Your task to perform on an android device: set the timer Image 0: 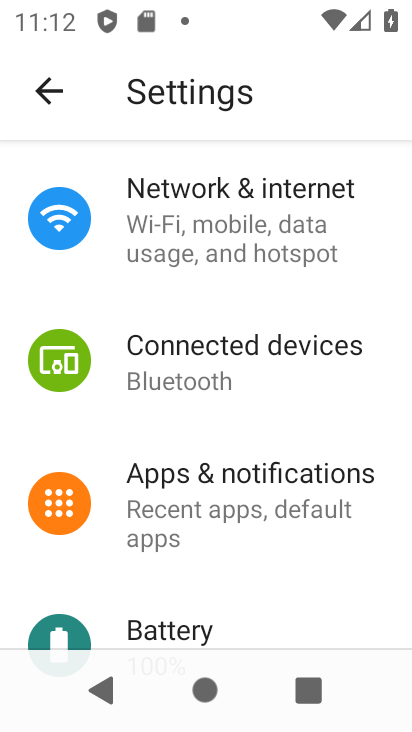
Step 0: press home button
Your task to perform on an android device: set the timer Image 1: 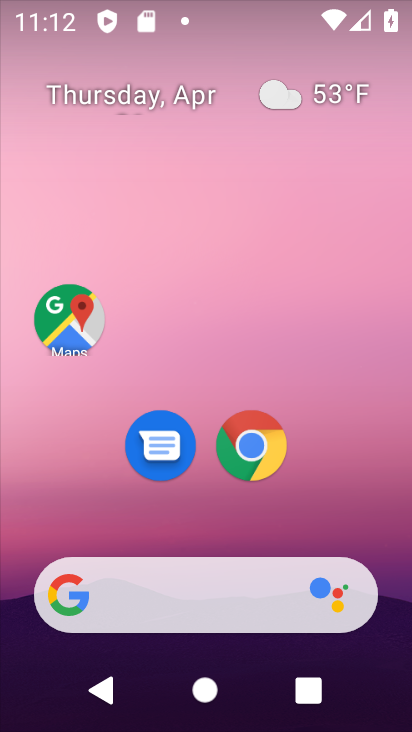
Step 1: drag from (182, 594) to (262, 49)
Your task to perform on an android device: set the timer Image 2: 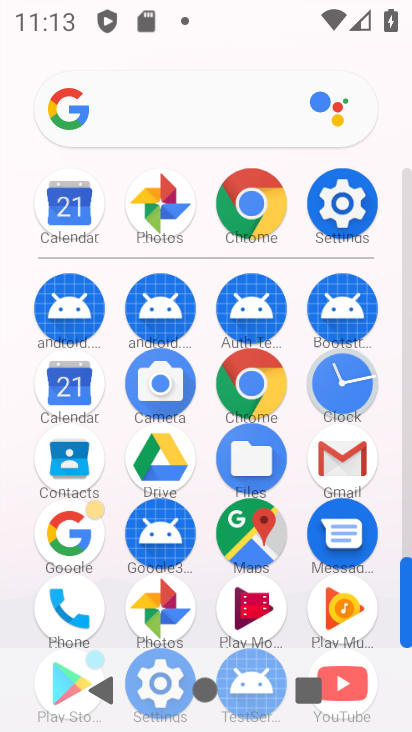
Step 2: click (340, 399)
Your task to perform on an android device: set the timer Image 3: 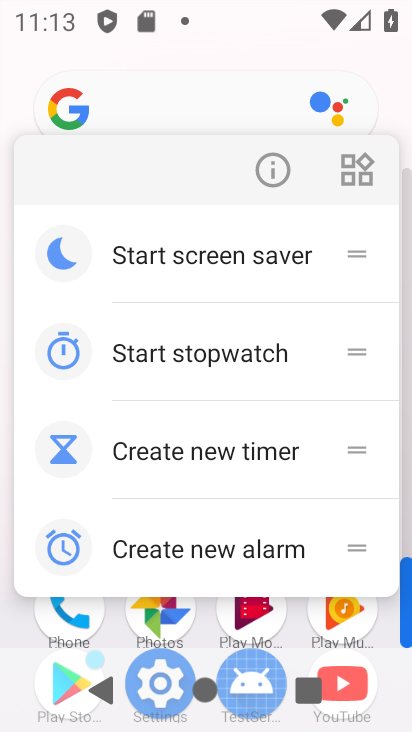
Step 3: drag from (117, 626) to (219, 181)
Your task to perform on an android device: set the timer Image 4: 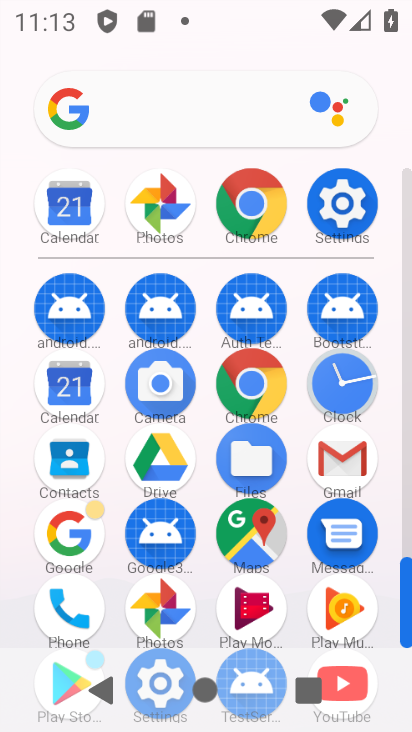
Step 4: click (341, 395)
Your task to perform on an android device: set the timer Image 5: 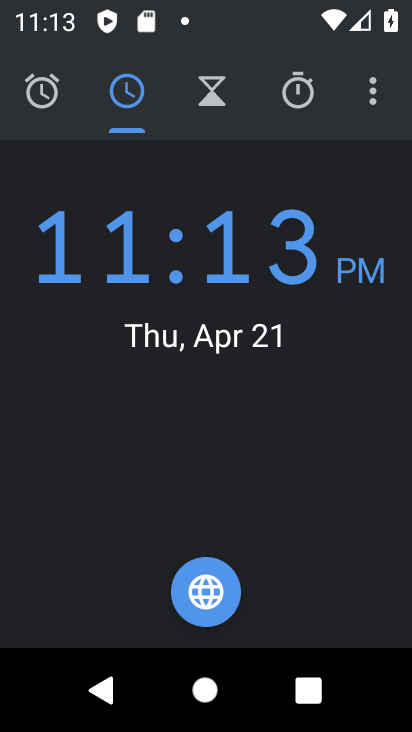
Step 5: click (213, 107)
Your task to perform on an android device: set the timer Image 6: 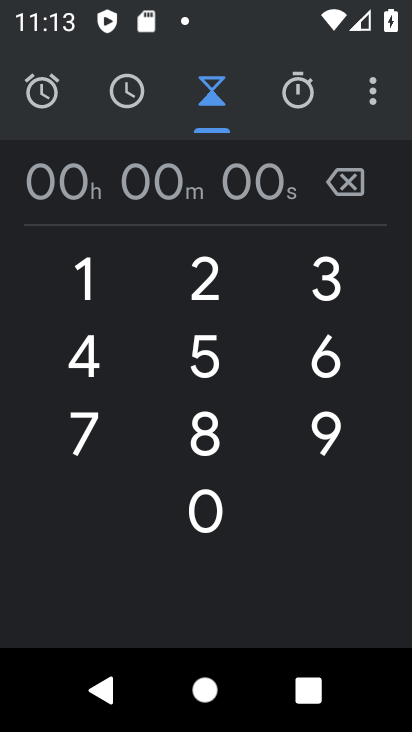
Step 6: click (95, 291)
Your task to perform on an android device: set the timer Image 7: 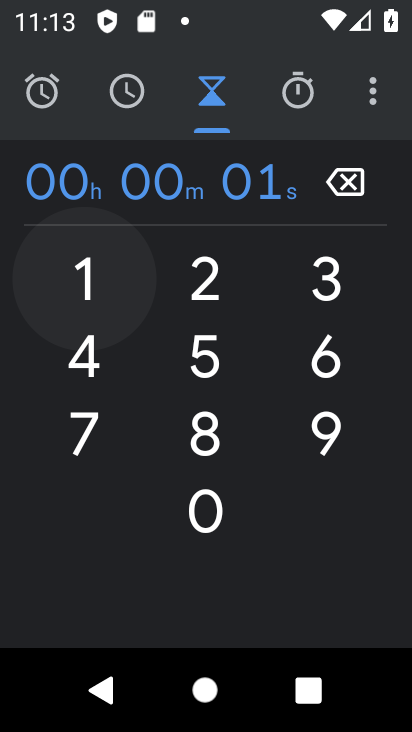
Step 7: click (184, 278)
Your task to perform on an android device: set the timer Image 8: 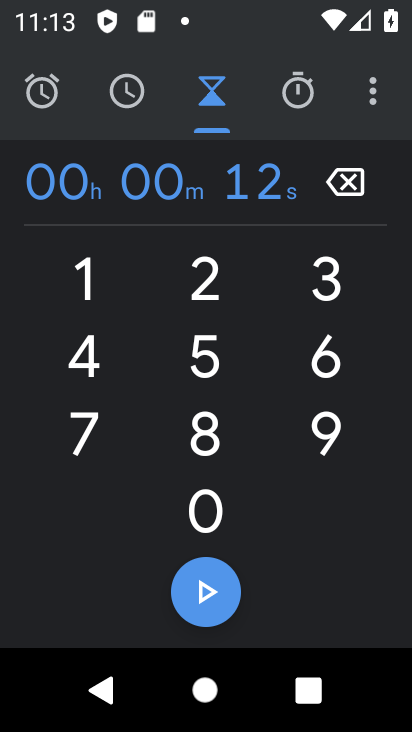
Step 8: click (205, 586)
Your task to perform on an android device: set the timer Image 9: 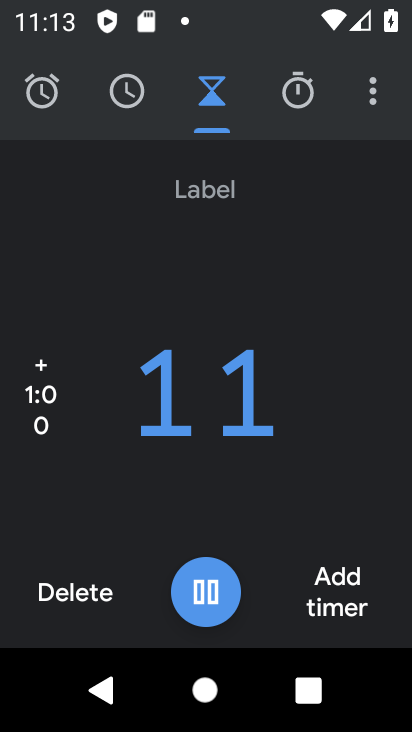
Step 9: click (209, 587)
Your task to perform on an android device: set the timer Image 10: 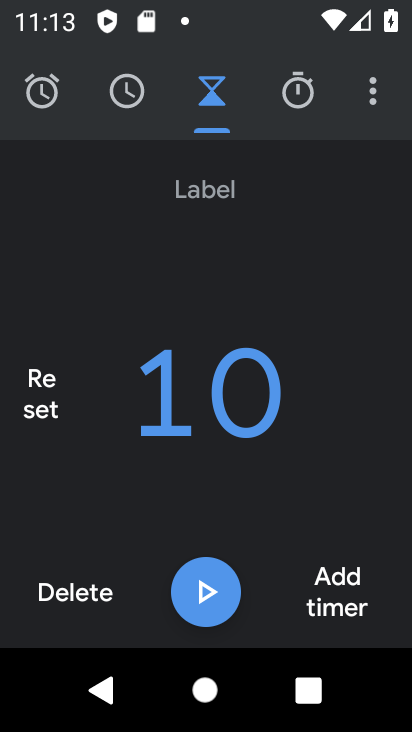
Step 10: task complete